Your task to perform on an android device: all mails in gmail Image 0: 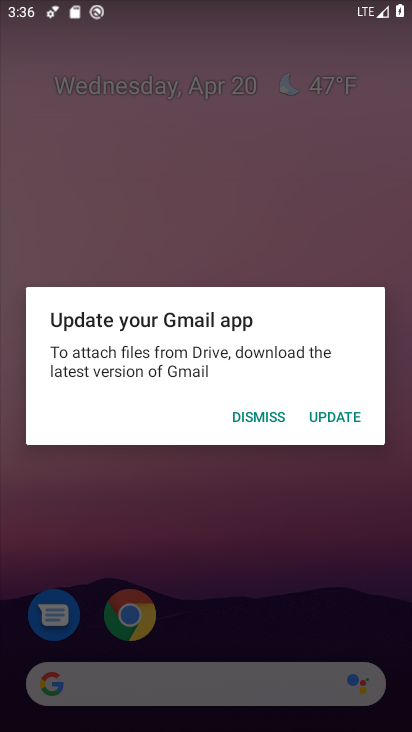
Step 0: press home button
Your task to perform on an android device: all mails in gmail Image 1: 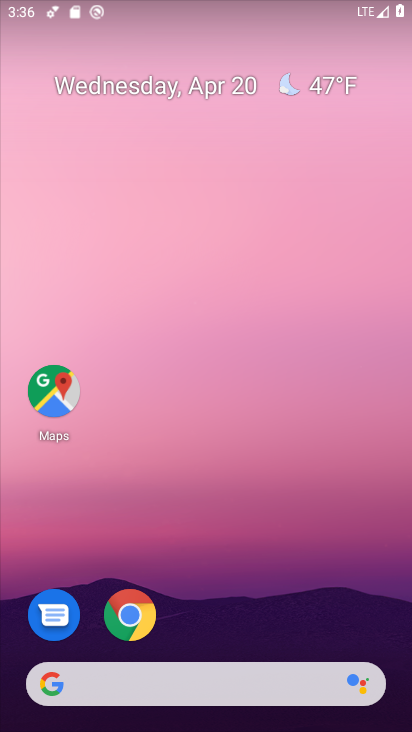
Step 1: drag from (239, 630) to (264, 214)
Your task to perform on an android device: all mails in gmail Image 2: 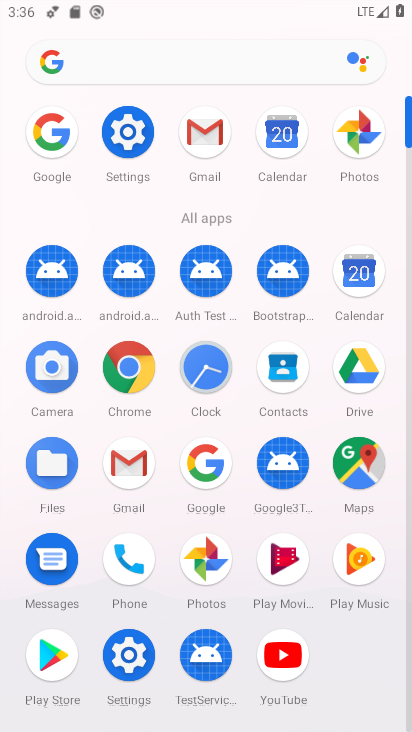
Step 2: click (203, 151)
Your task to perform on an android device: all mails in gmail Image 3: 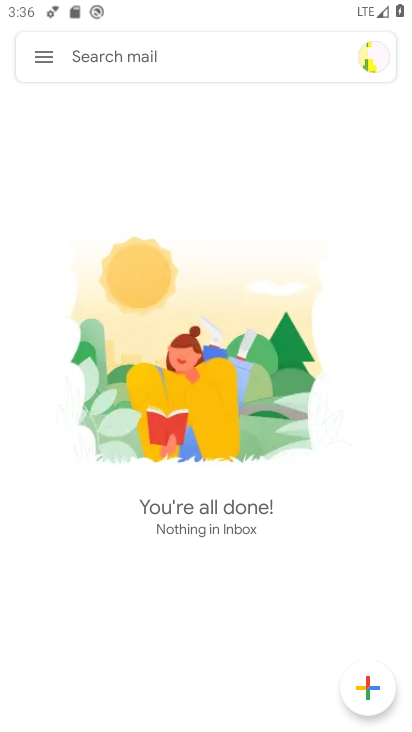
Step 3: click (45, 52)
Your task to perform on an android device: all mails in gmail Image 4: 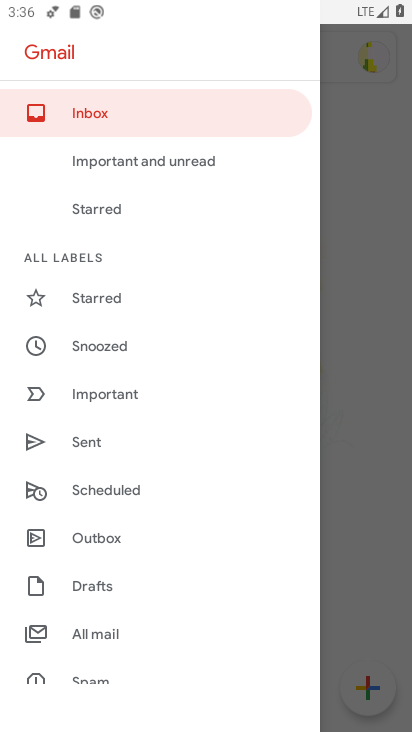
Step 4: click (116, 632)
Your task to perform on an android device: all mails in gmail Image 5: 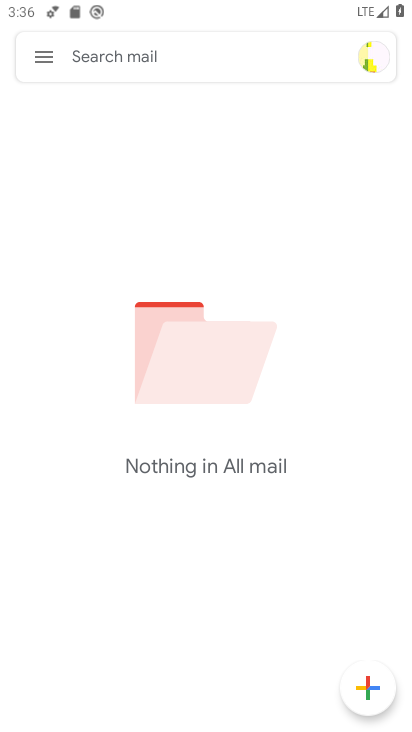
Step 5: task complete